Your task to perform on an android device: turn pop-ups off in chrome Image 0: 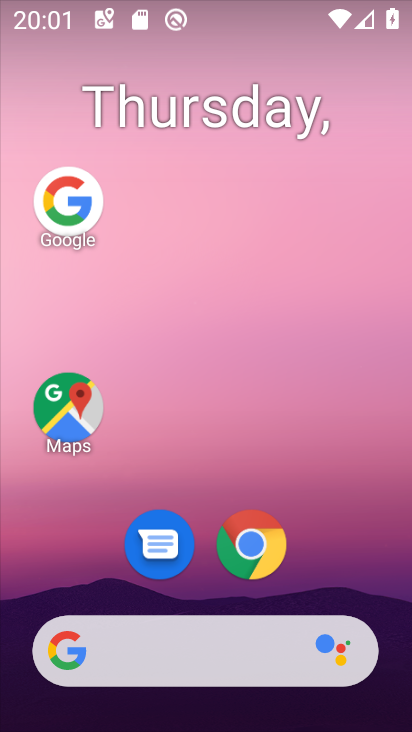
Step 0: drag from (244, 700) to (236, 154)
Your task to perform on an android device: turn pop-ups off in chrome Image 1: 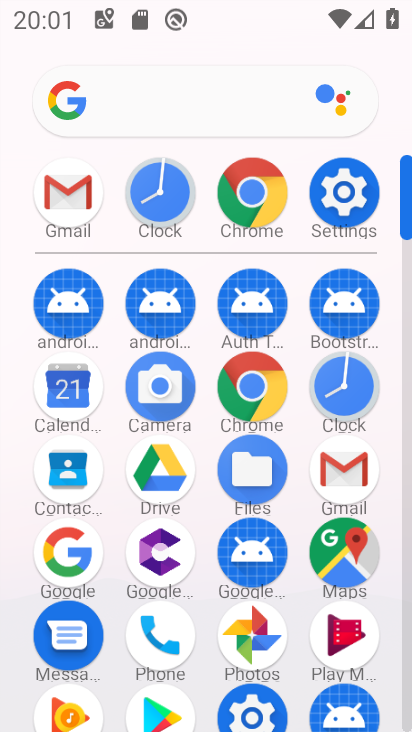
Step 1: click (247, 389)
Your task to perform on an android device: turn pop-ups off in chrome Image 2: 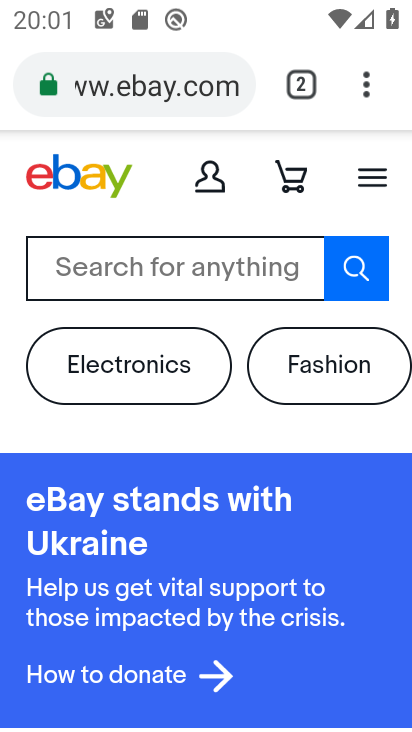
Step 2: click (368, 94)
Your task to perform on an android device: turn pop-ups off in chrome Image 3: 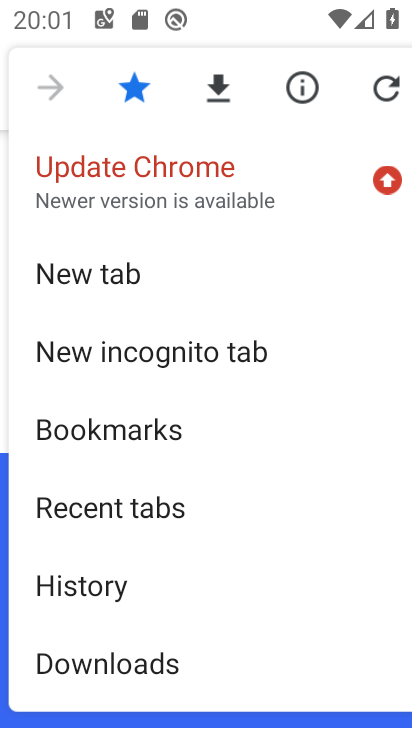
Step 3: drag from (177, 592) to (232, 131)
Your task to perform on an android device: turn pop-ups off in chrome Image 4: 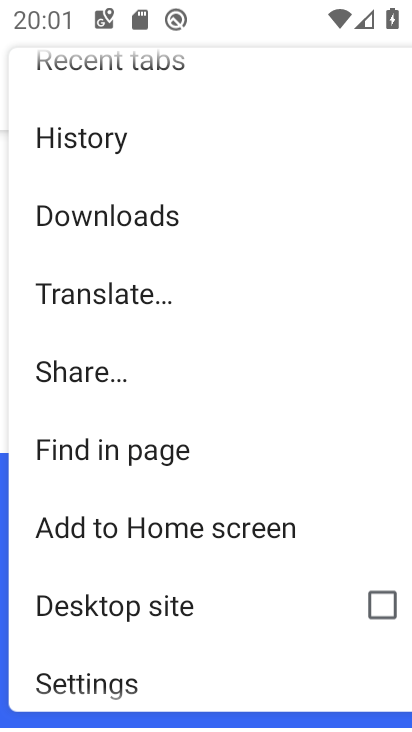
Step 4: click (92, 680)
Your task to perform on an android device: turn pop-ups off in chrome Image 5: 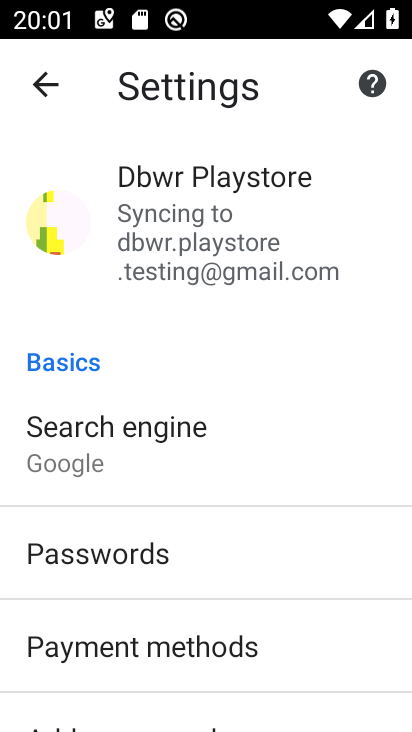
Step 5: drag from (242, 610) to (253, 281)
Your task to perform on an android device: turn pop-ups off in chrome Image 6: 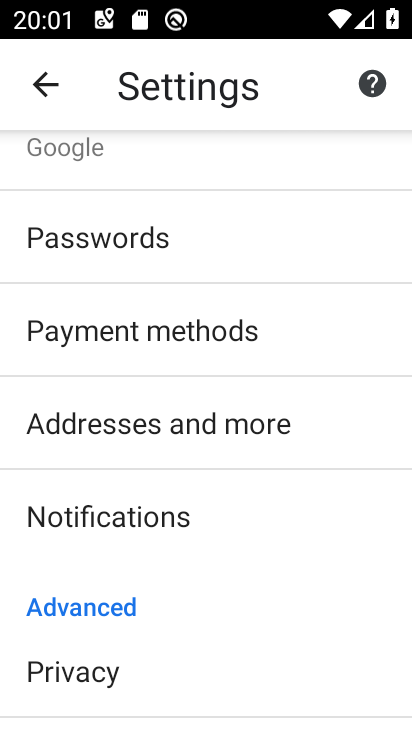
Step 6: drag from (164, 546) to (214, 335)
Your task to perform on an android device: turn pop-ups off in chrome Image 7: 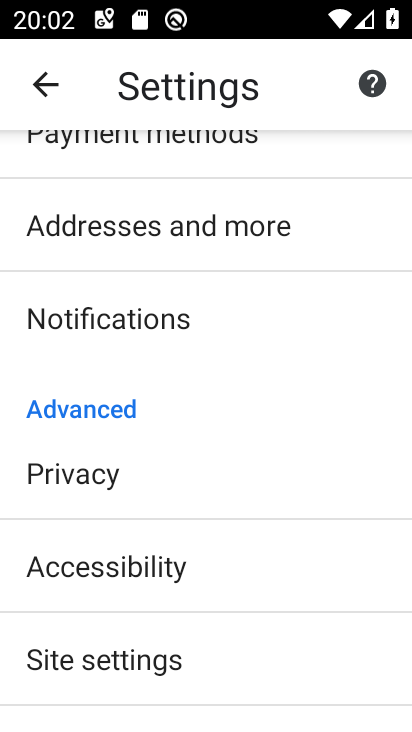
Step 7: click (93, 652)
Your task to perform on an android device: turn pop-ups off in chrome Image 8: 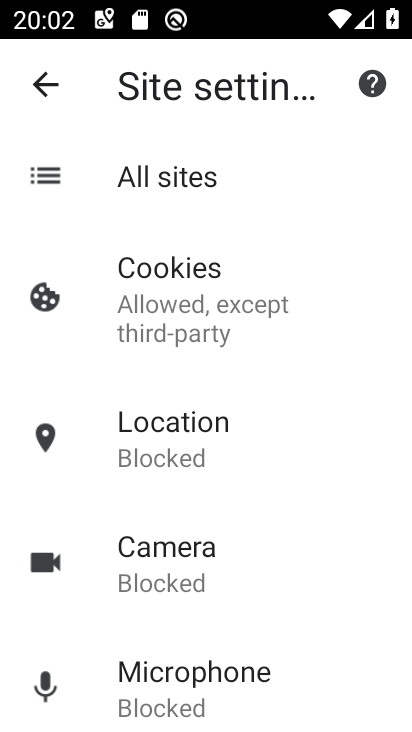
Step 8: drag from (202, 647) to (233, 415)
Your task to perform on an android device: turn pop-ups off in chrome Image 9: 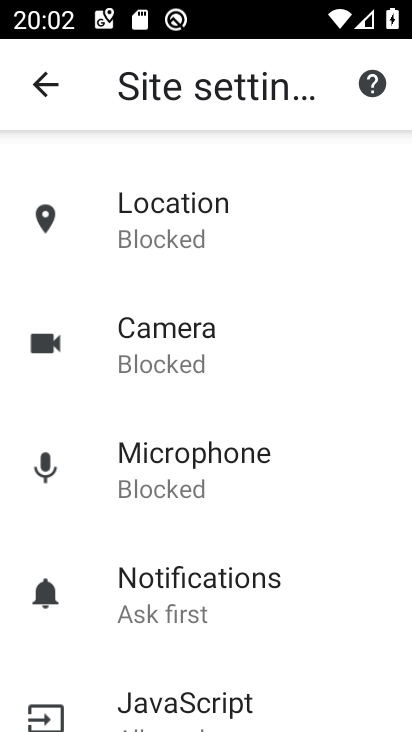
Step 9: drag from (185, 658) to (189, 529)
Your task to perform on an android device: turn pop-ups off in chrome Image 10: 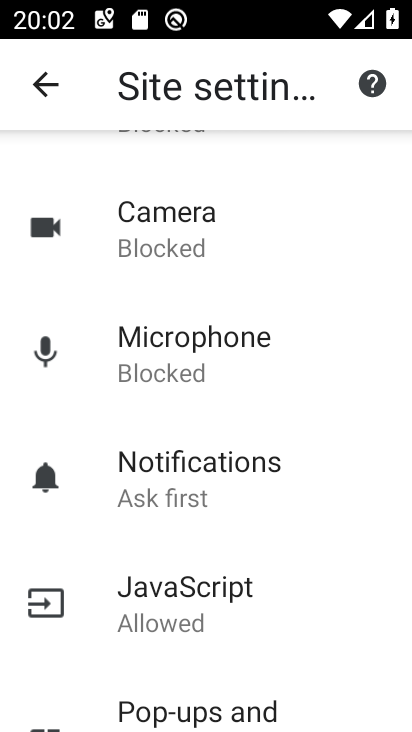
Step 10: click (143, 702)
Your task to perform on an android device: turn pop-ups off in chrome Image 11: 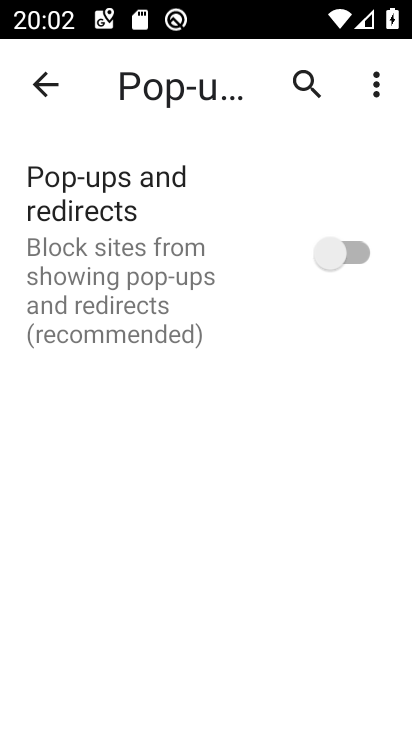
Step 11: click (304, 266)
Your task to perform on an android device: turn pop-ups off in chrome Image 12: 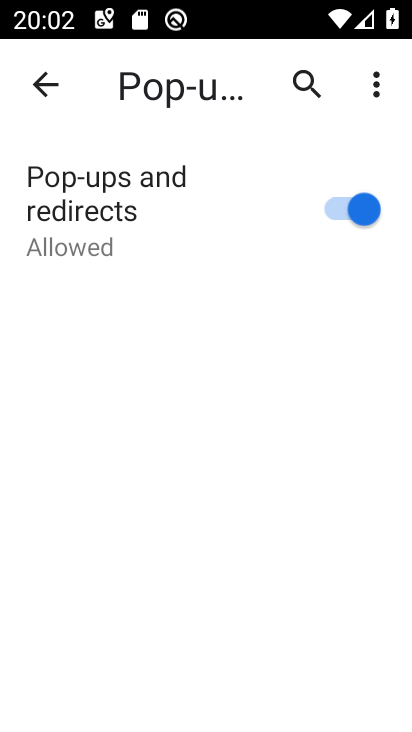
Step 12: click (309, 248)
Your task to perform on an android device: turn pop-ups off in chrome Image 13: 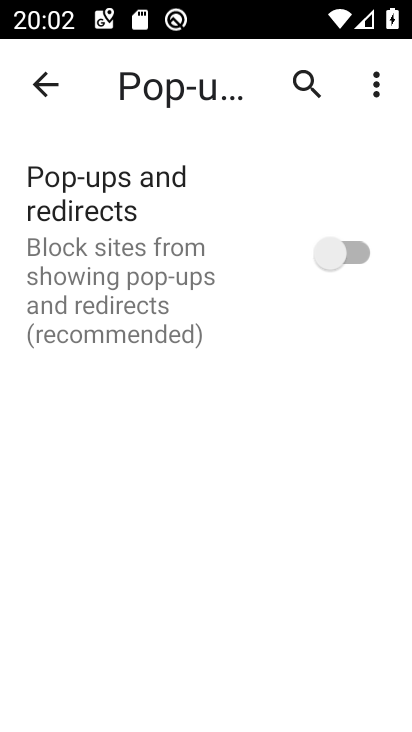
Step 13: task complete